Your task to perform on an android device: What's the news in Peru? Image 0: 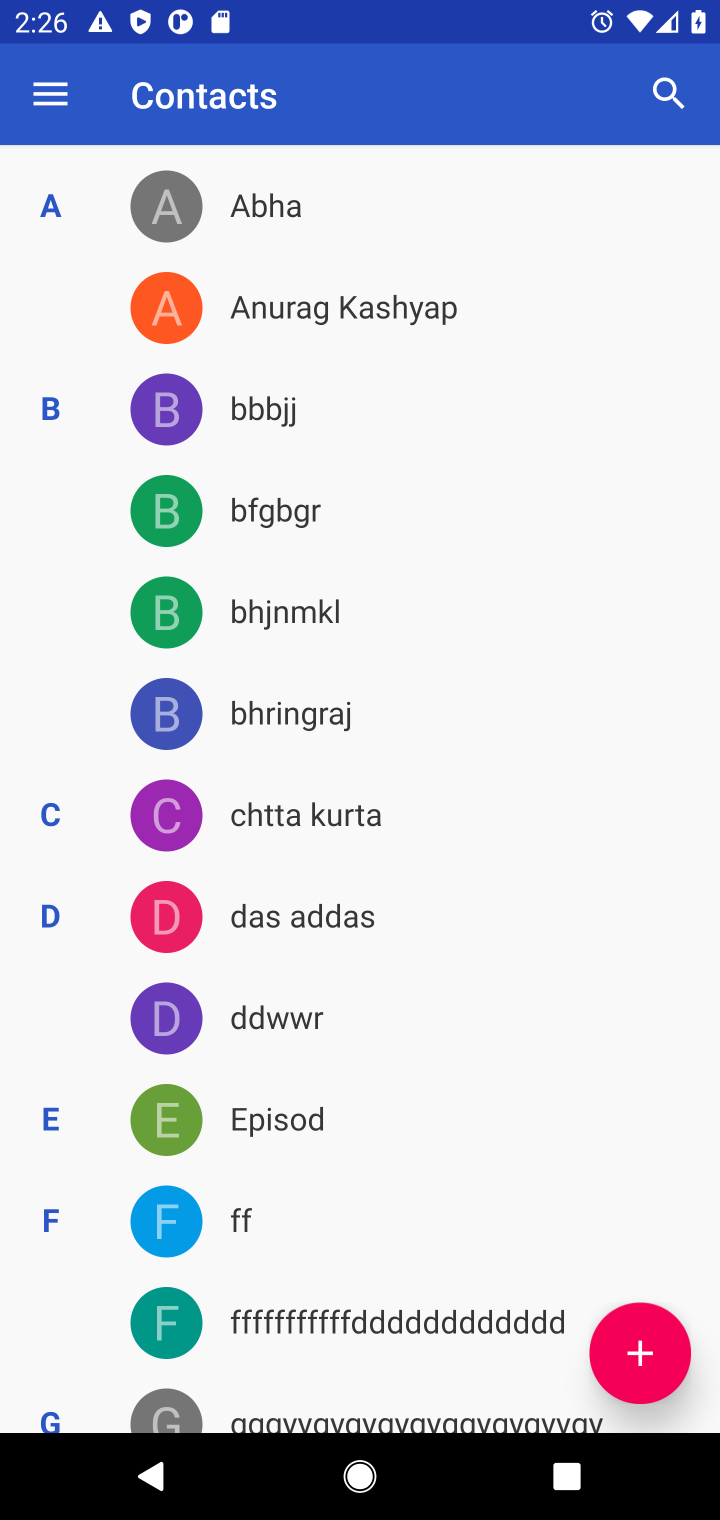
Step 0: press home button
Your task to perform on an android device: What's the news in Peru? Image 1: 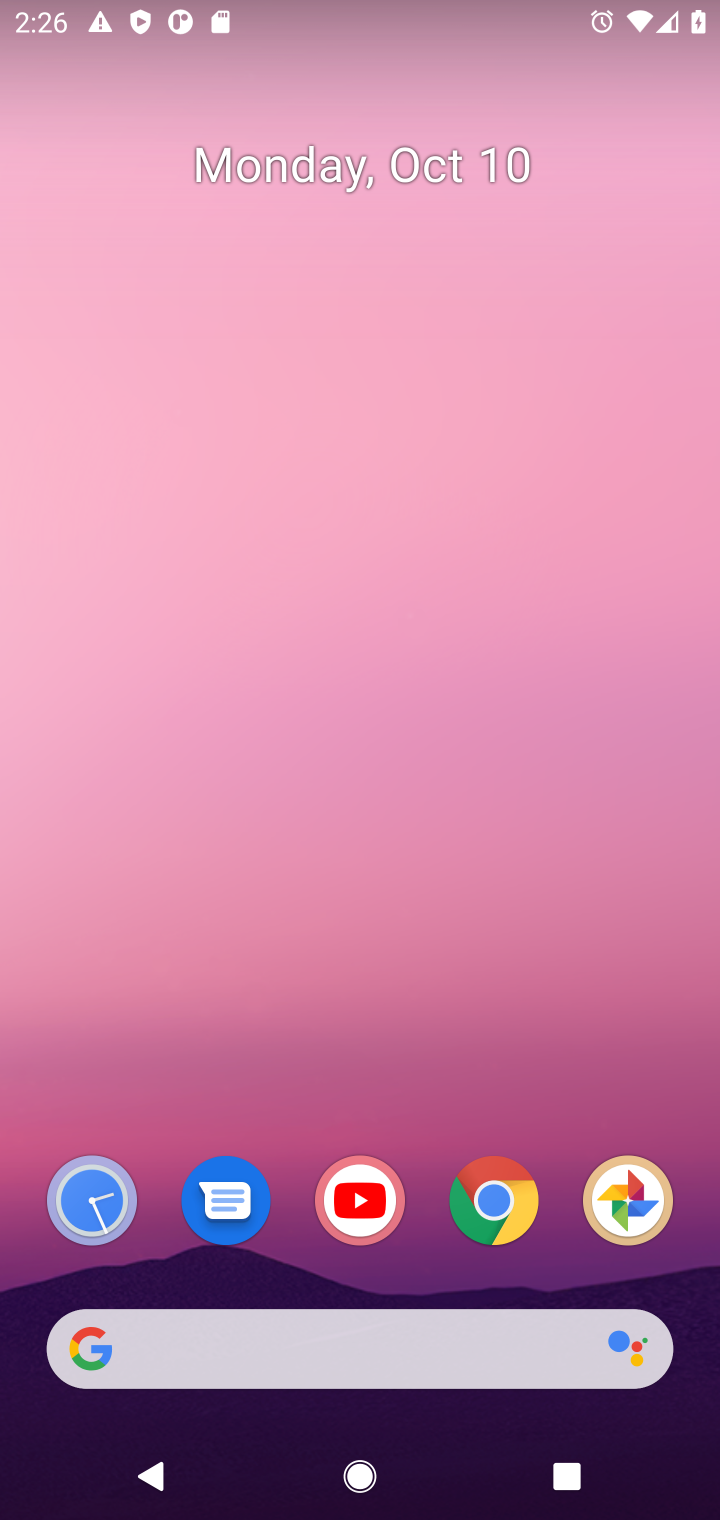
Step 1: click (479, 1199)
Your task to perform on an android device: What's the news in Peru? Image 2: 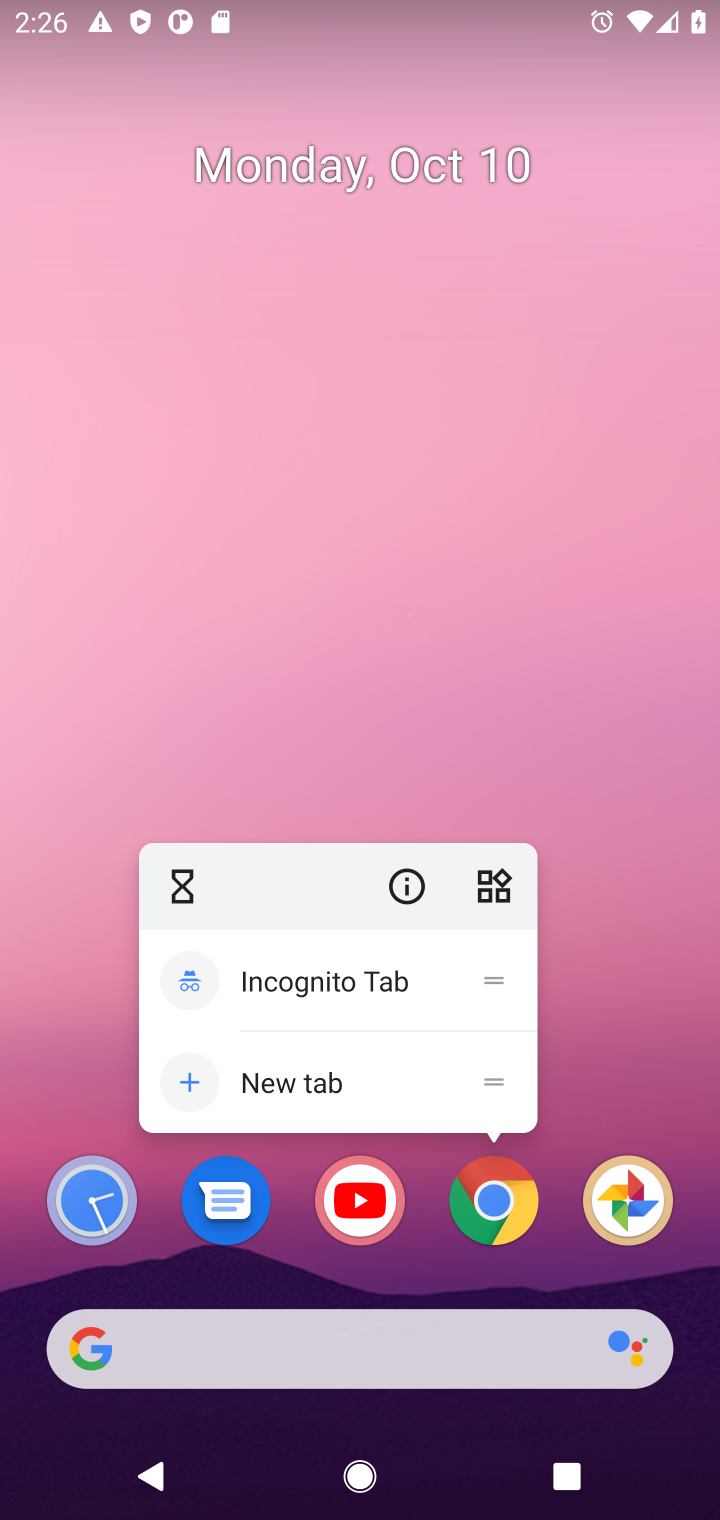
Step 2: click (493, 1216)
Your task to perform on an android device: What's the news in Peru? Image 3: 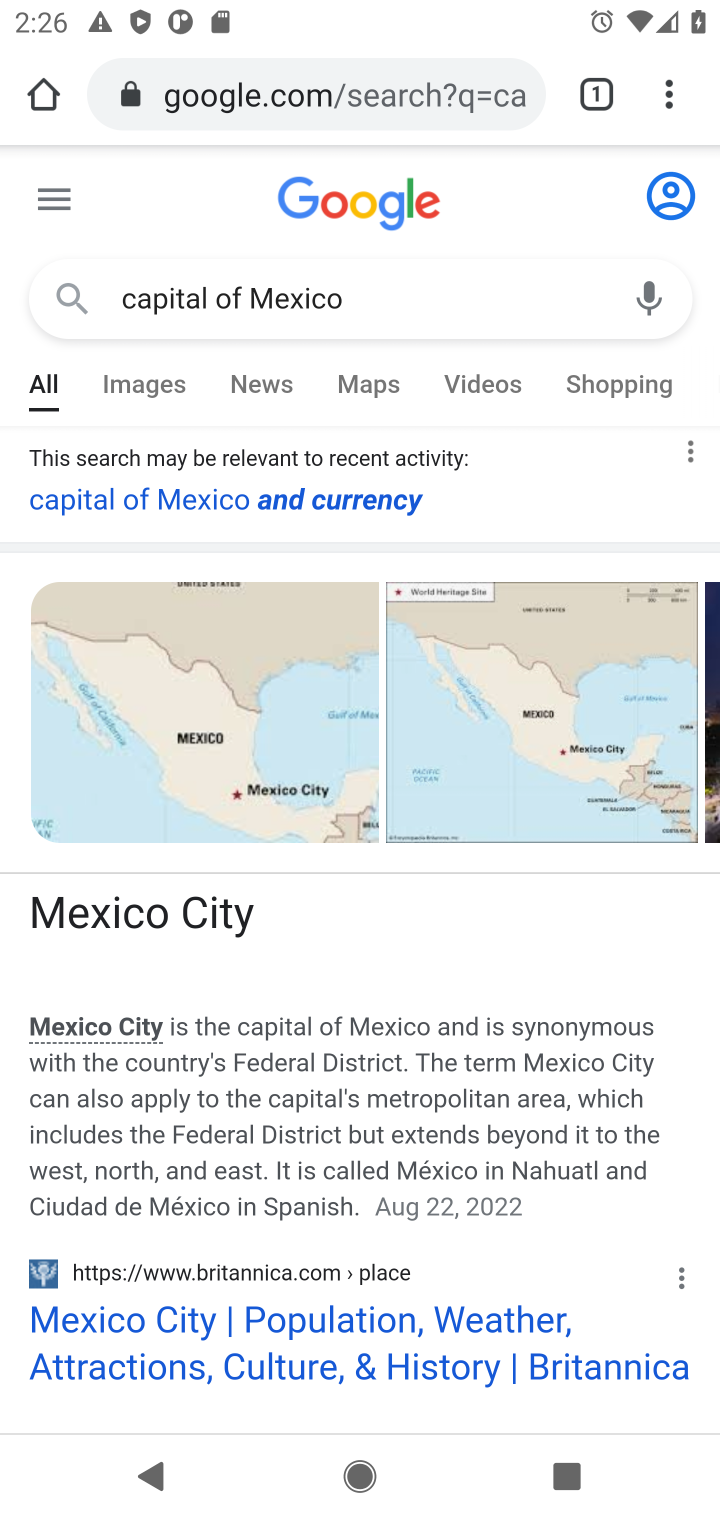
Step 3: click (381, 101)
Your task to perform on an android device: What's the news in Peru? Image 4: 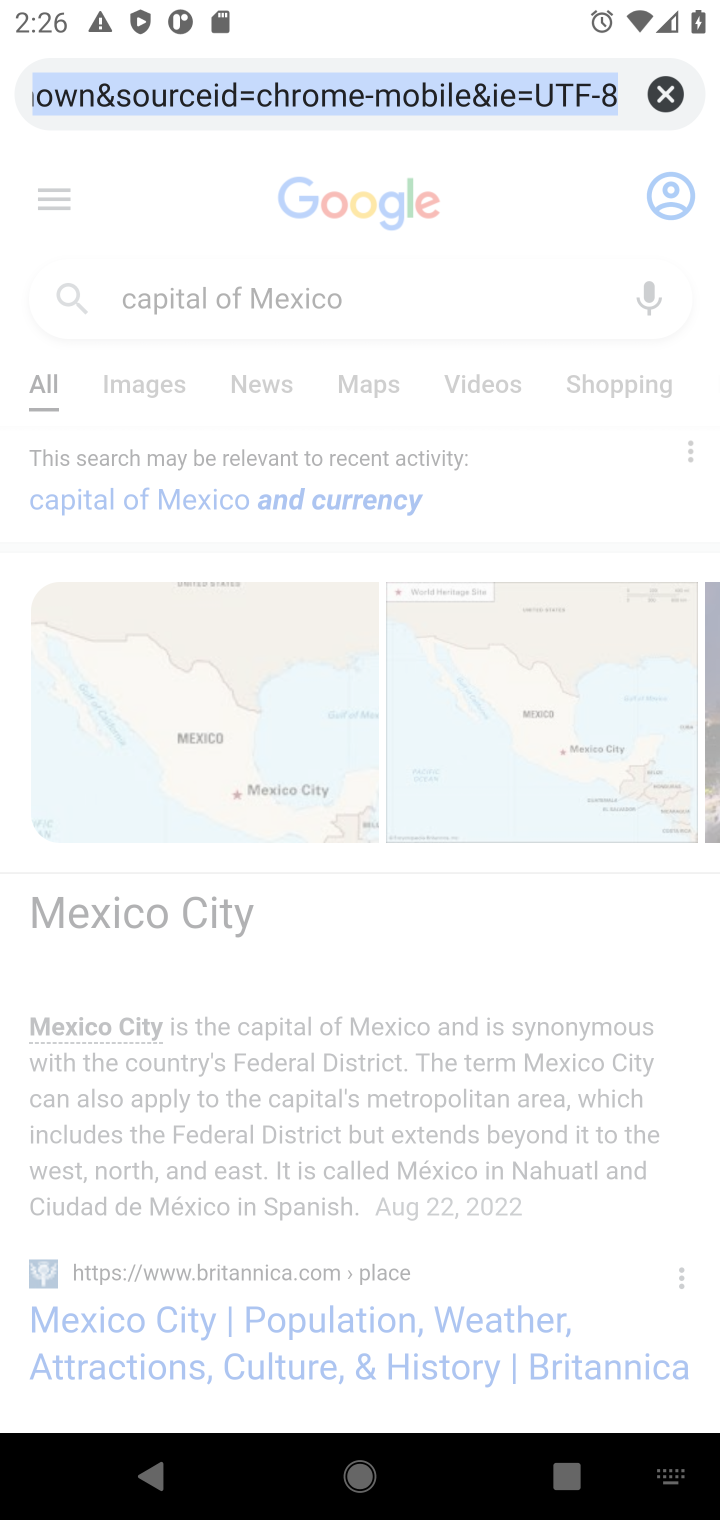
Step 4: type "Peru"
Your task to perform on an android device: What's the news in Peru? Image 5: 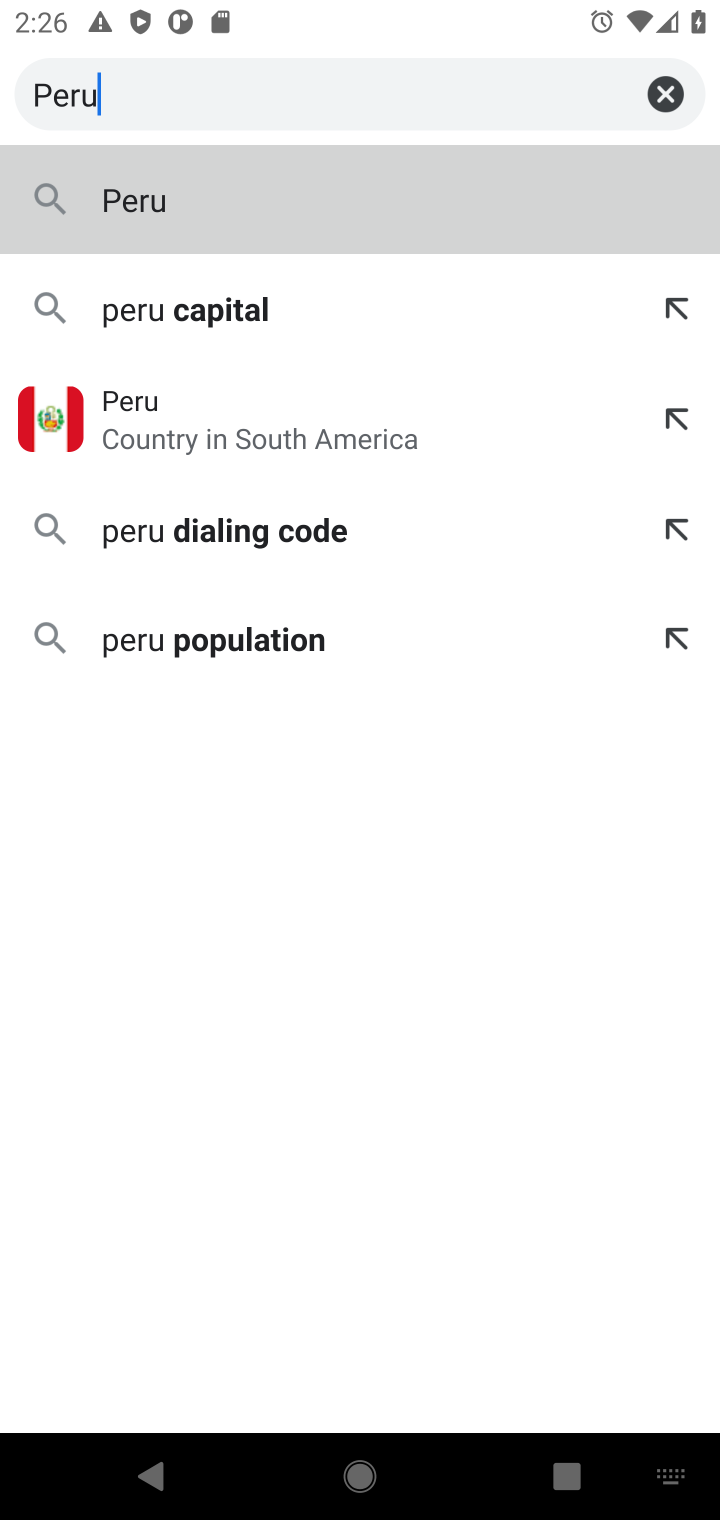
Step 5: click (149, 209)
Your task to perform on an android device: What's the news in Peru? Image 6: 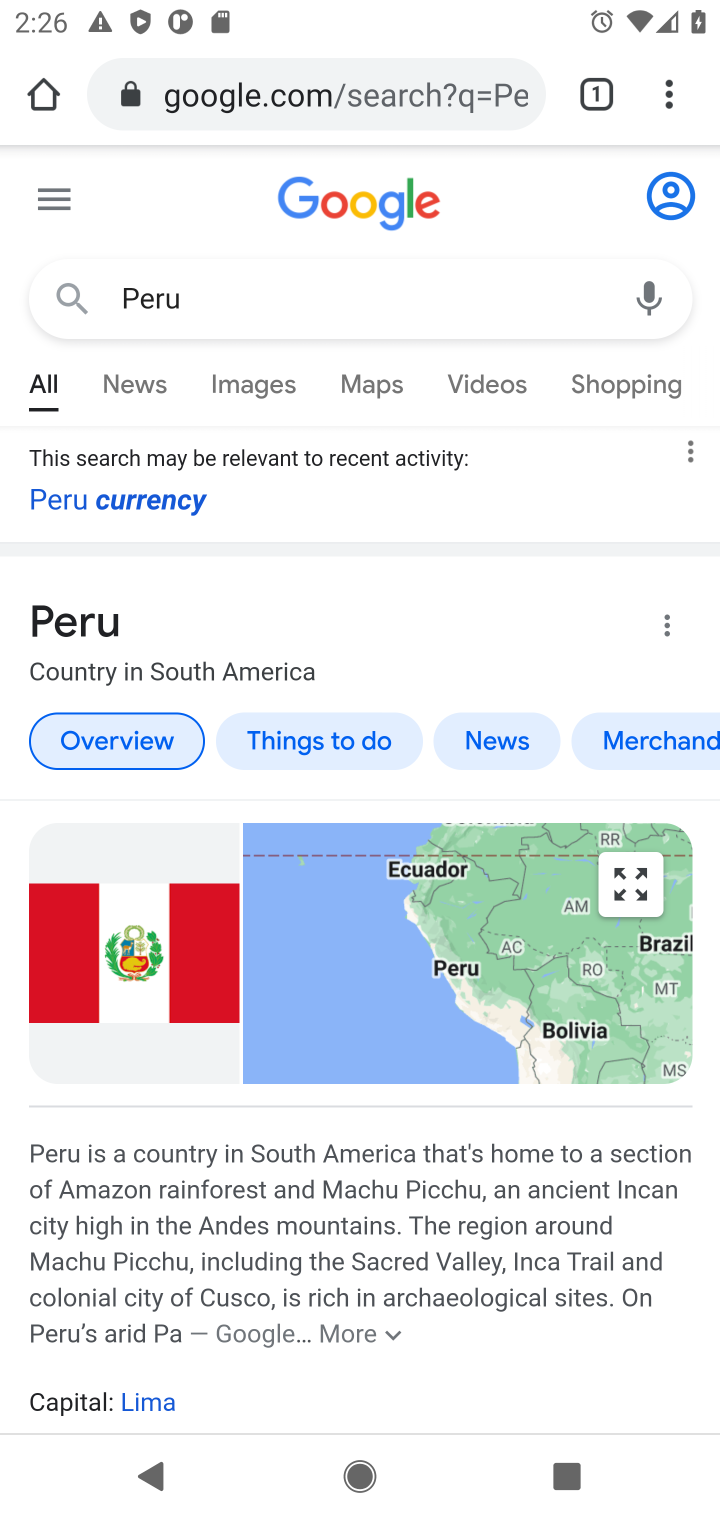
Step 6: click (133, 378)
Your task to perform on an android device: What's the news in Peru? Image 7: 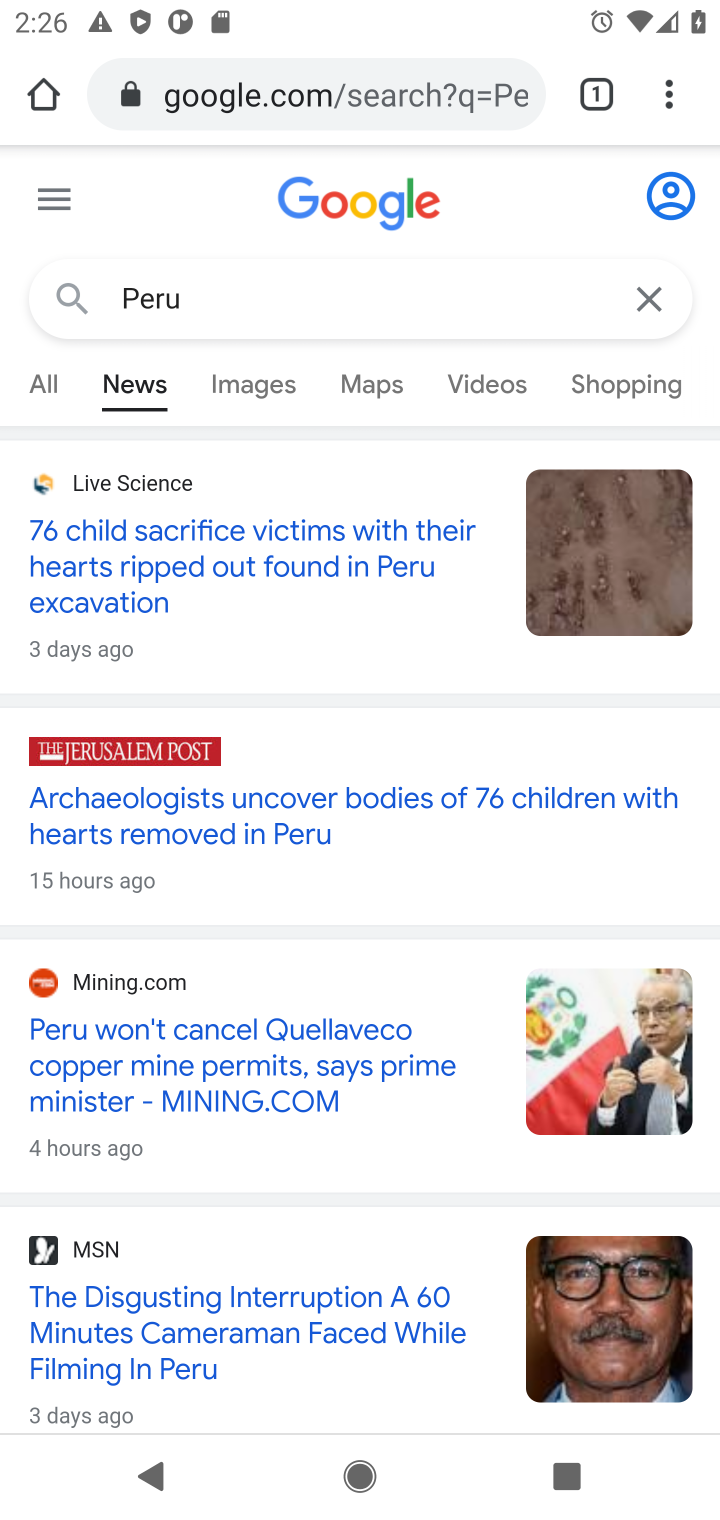
Step 7: task complete